Your task to perform on an android device: open app "Spotify: Music and Podcasts" (install if not already installed) Image 0: 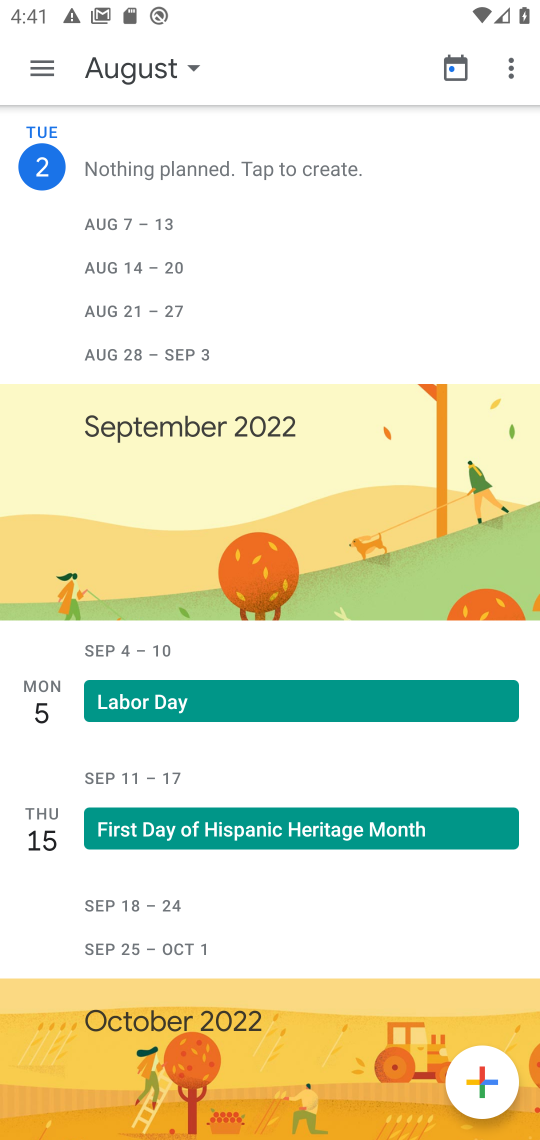
Step 0: press home button
Your task to perform on an android device: open app "Spotify: Music and Podcasts" (install if not already installed) Image 1: 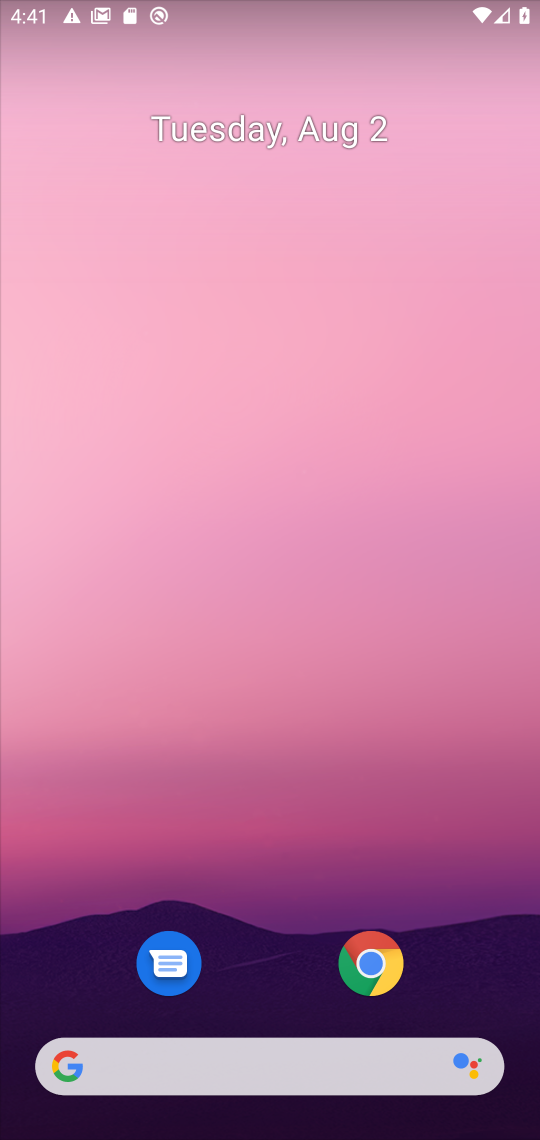
Step 1: drag from (198, 1033) to (352, 163)
Your task to perform on an android device: open app "Spotify: Music and Podcasts" (install if not already installed) Image 2: 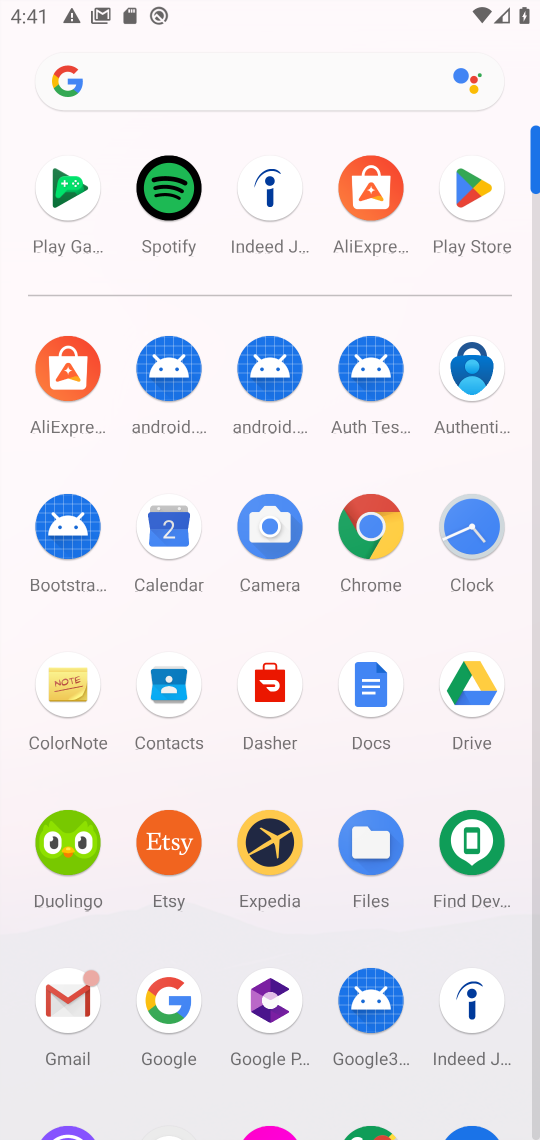
Step 2: click (170, 207)
Your task to perform on an android device: open app "Spotify: Music and Podcasts" (install if not already installed) Image 3: 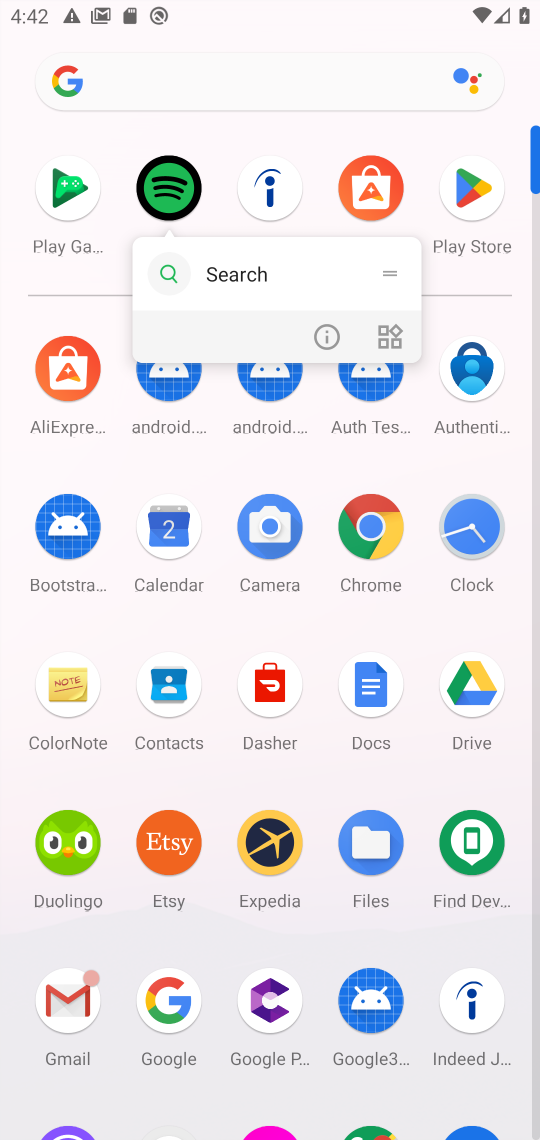
Step 3: click (180, 185)
Your task to perform on an android device: open app "Spotify: Music and Podcasts" (install if not already installed) Image 4: 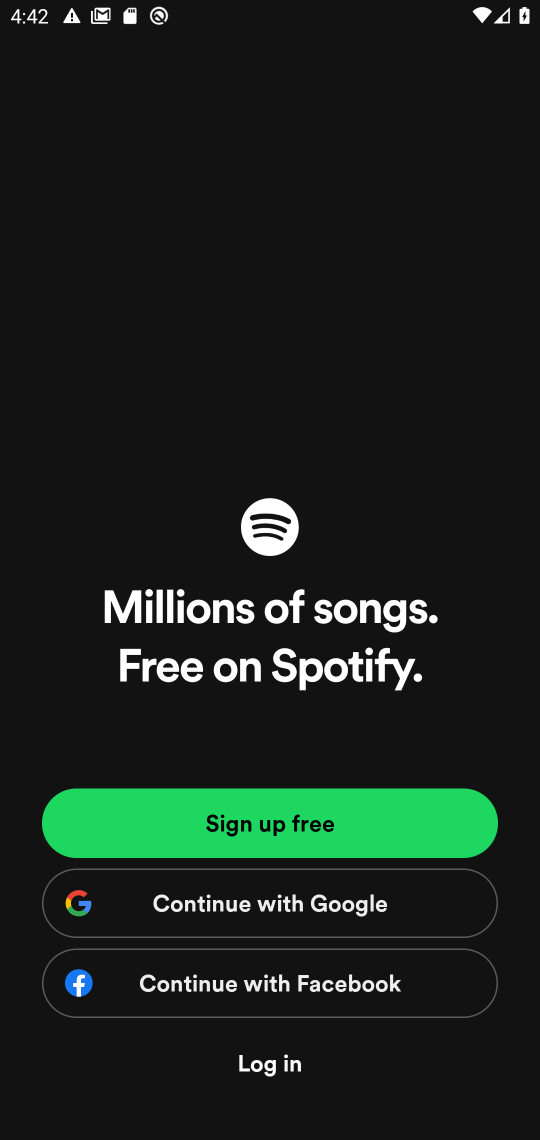
Step 4: task complete